Your task to perform on an android device: open wifi settings Image 0: 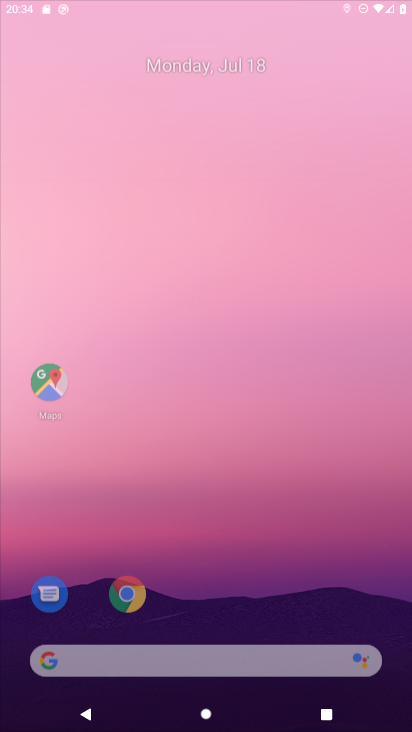
Step 0: click (129, 120)
Your task to perform on an android device: open wifi settings Image 1: 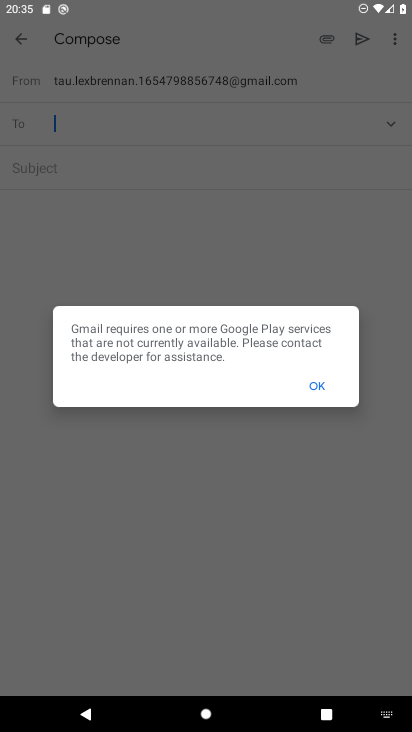
Step 1: press home button
Your task to perform on an android device: open wifi settings Image 2: 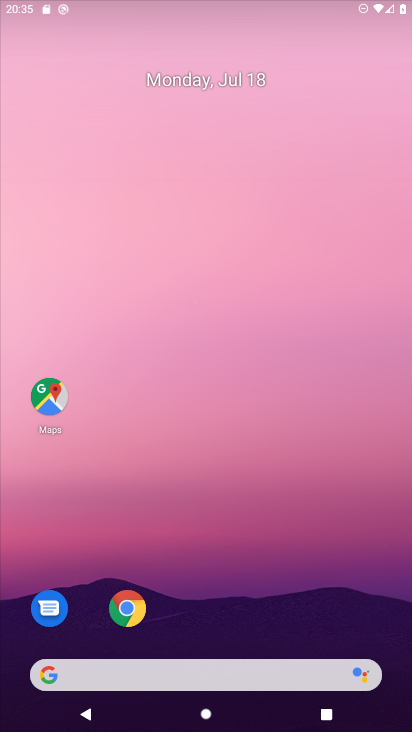
Step 2: drag from (230, 623) to (286, 97)
Your task to perform on an android device: open wifi settings Image 3: 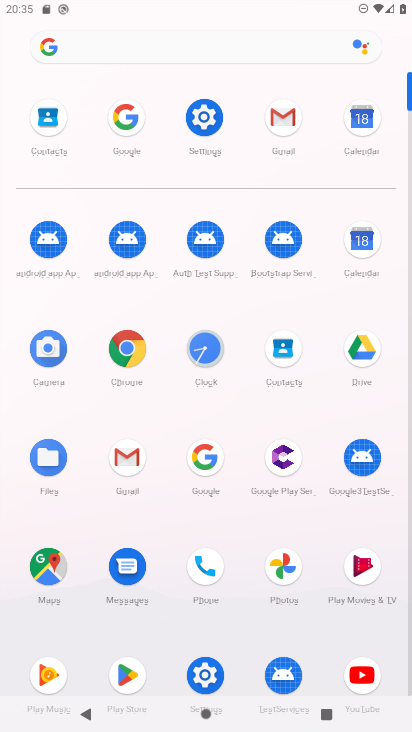
Step 3: click (204, 119)
Your task to perform on an android device: open wifi settings Image 4: 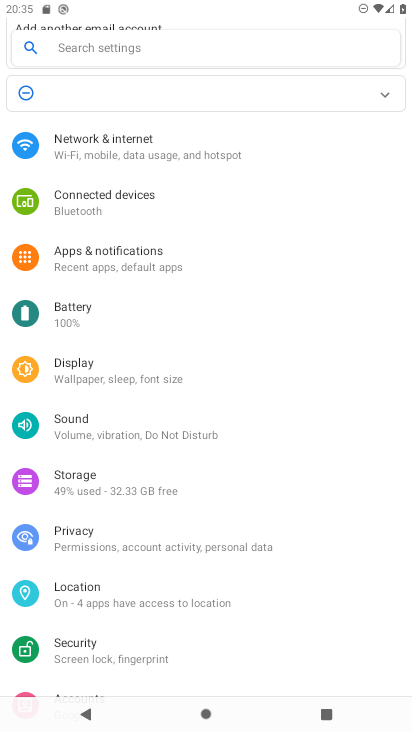
Step 4: click (156, 140)
Your task to perform on an android device: open wifi settings Image 5: 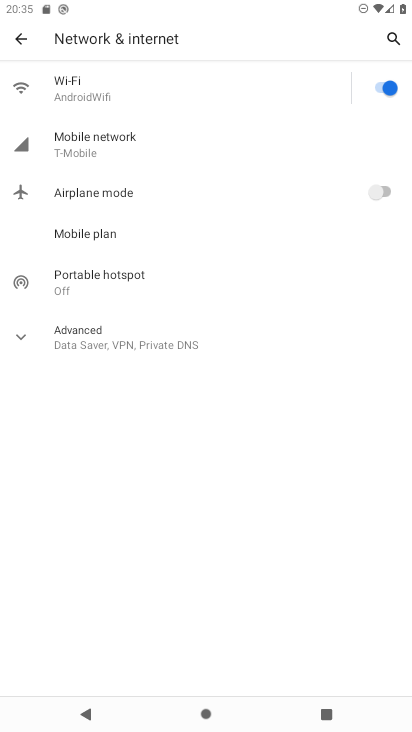
Step 5: click (147, 91)
Your task to perform on an android device: open wifi settings Image 6: 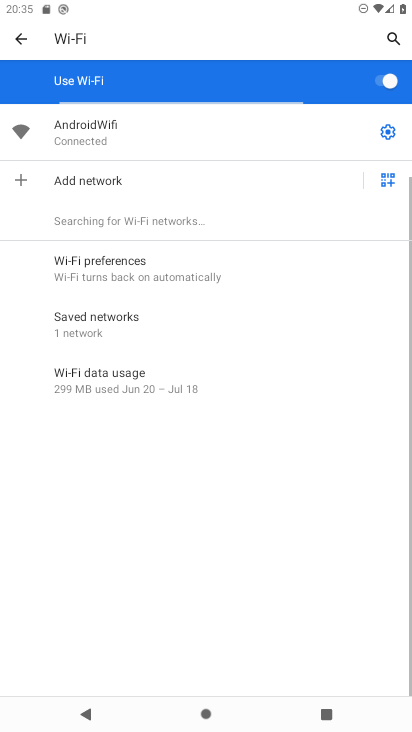
Step 6: click (170, 152)
Your task to perform on an android device: open wifi settings Image 7: 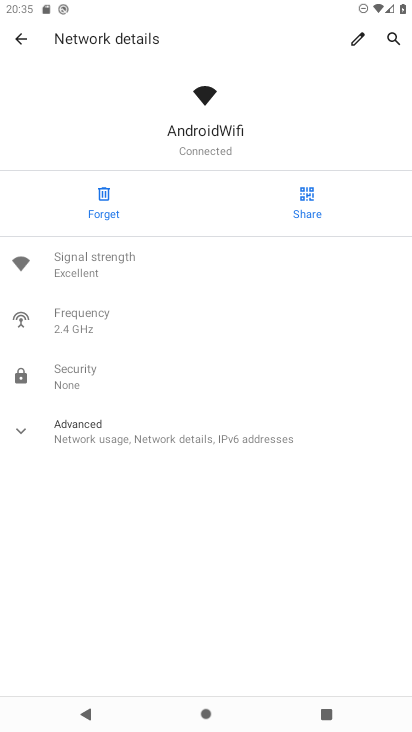
Step 7: task complete